Your task to perform on an android device: Open Youtube and go to the subscriptions tab Image 0: 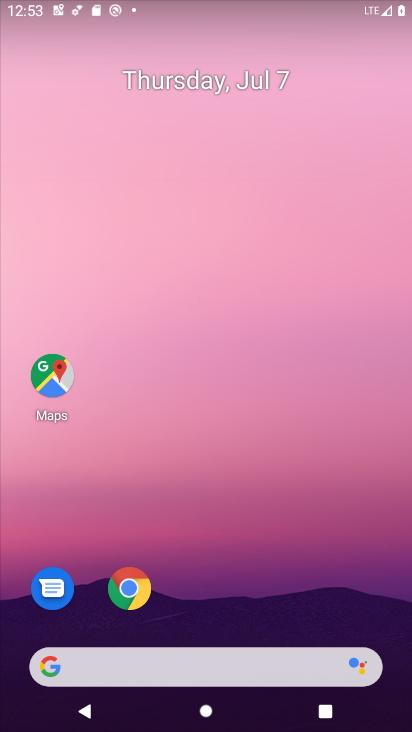
Step 0: click (170, 729)
Your task to perform on an android device: Open Youtube and go to the subscriptions tab Image 1: 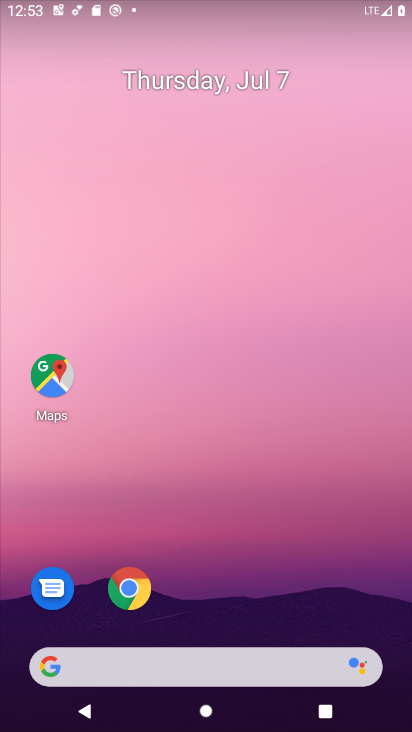
Step 1: drag from (196, 609) to (299, 138)
Your task to perform on an android device: Open Youtube and go to the subscriptions tab Image 2: 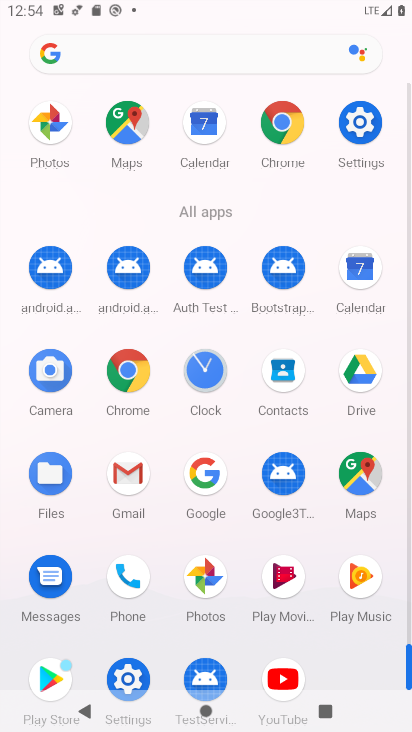
Step 2: click (269, 667)
Your task to perform on an android device: Open Youtube and go to the subscriptions tab Image 3: 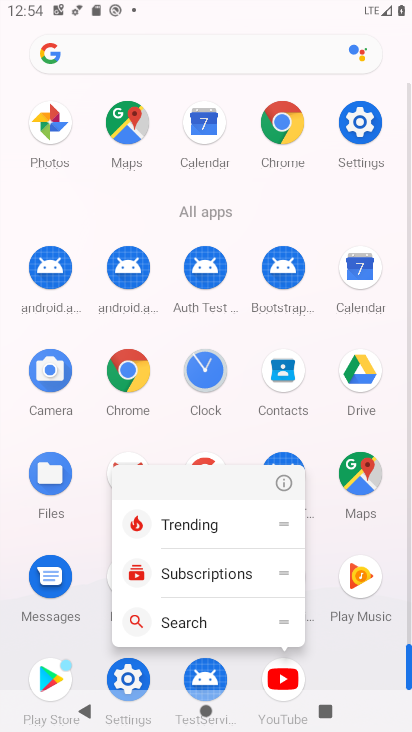
Step 3: click (280, 489)
Your task to perform on an android device: Open Youtube and go to the subscriptions tab Image 4: 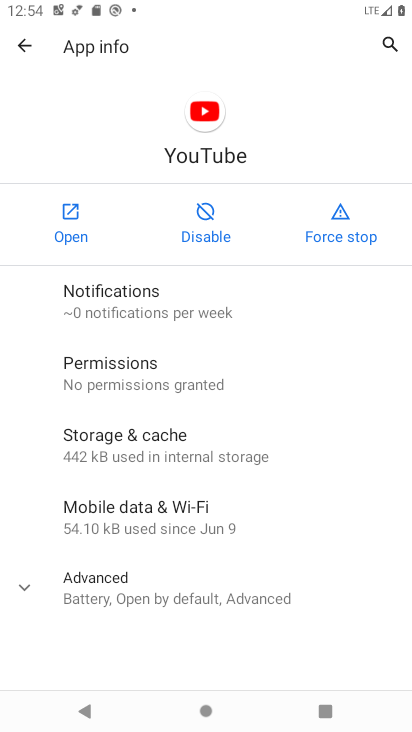
Step 4: click (73, 217)
Your task to perform on an android device: Open Youtube and go to the subscriptions tab Image 5: 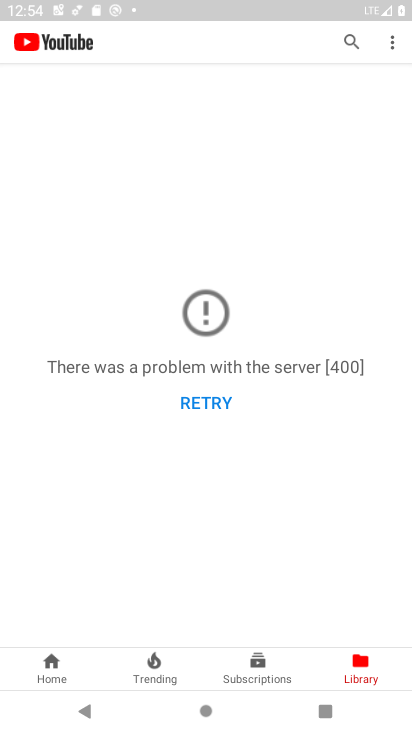
Step 5: drag from (208, 540) to (313, 264)
Your task to perform on an android device: Open Youtube and go to the subscriptions tab Image 6: 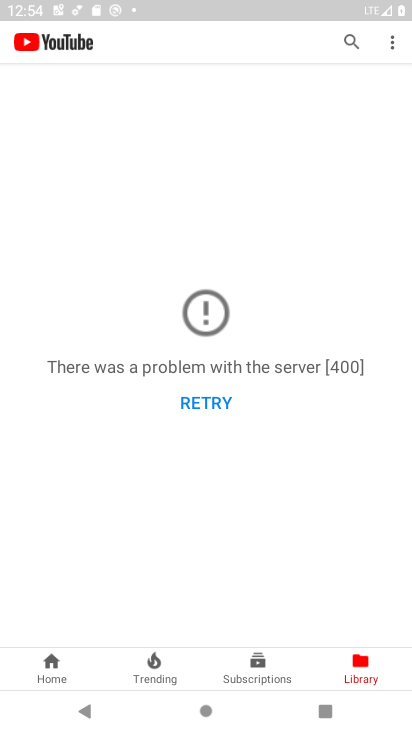
Step 6: drag from (278, 587) to (326, 380)
Your task to perform on an android device: Open Youtube and go to the subscriptions tab Image 7: 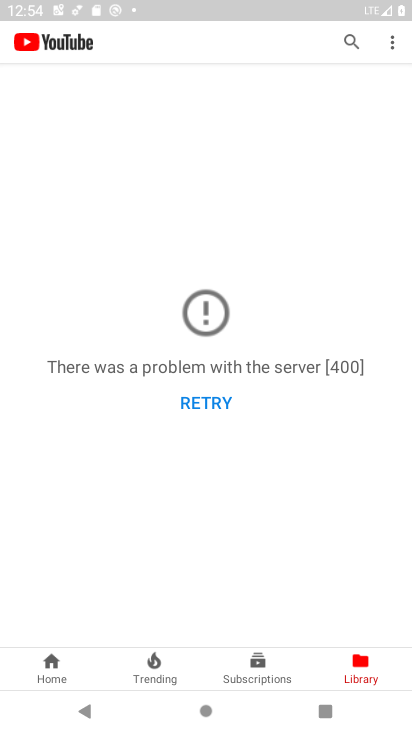
Step 7: press home button
Your task to perform on an android device: Open Youtube and go to the subscriptions tab Image 8: 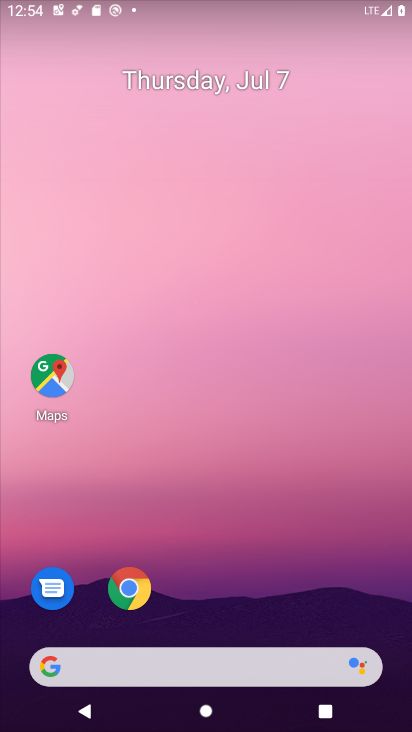
Step 8: drag from (199, 635) to (323, 167)
Your task to perform on an android device: Open Youtube and go to the subscriptions tab Image 9: 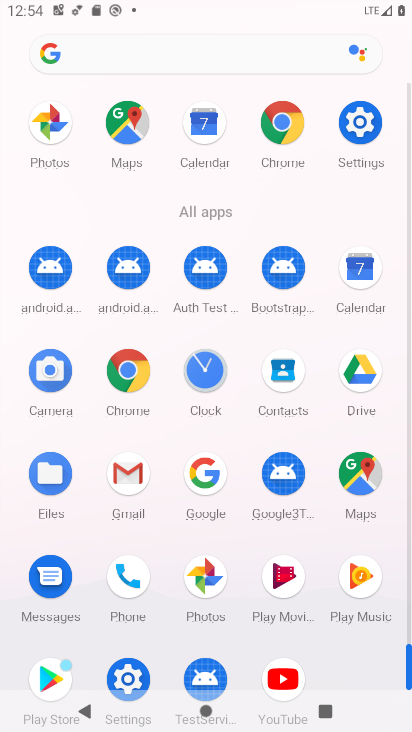
Step 9: click (290, 674)
Your task to perform on an android device: Open Youtube and go to the subscriptions tab Image 10: 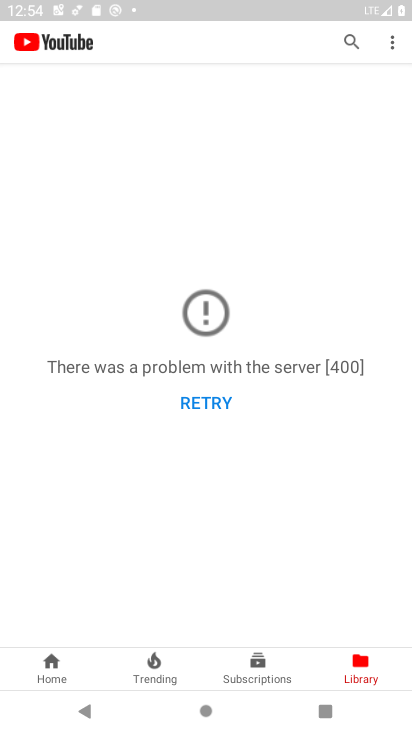
Step 10: click (344, 666)
Your task to perform on an android device: Open Youtube and go to the subscriptions tab Image 11: 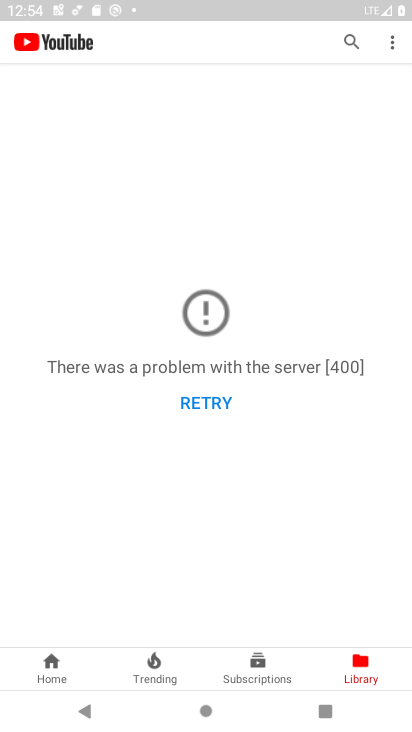
Step 11: click (250, 664)
Your task to perform on an android device: Open Youtube and go to the subscriptions tab Image 12: 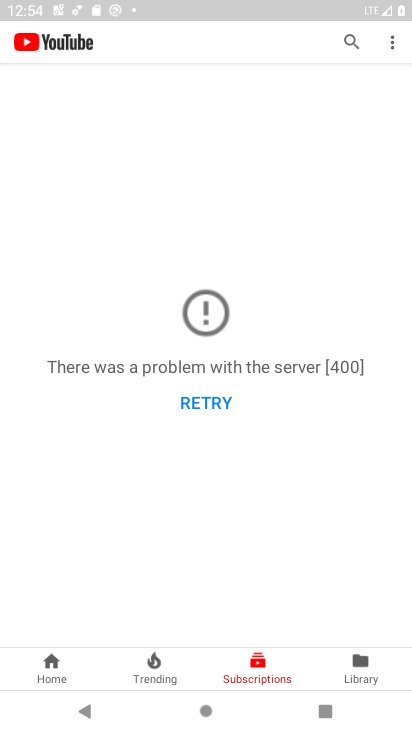
Step 12: drag from (232, 540) to (290, 289)
Your task to perform on an android device: Open Youtube and go to the subscriptions tab Image 13: 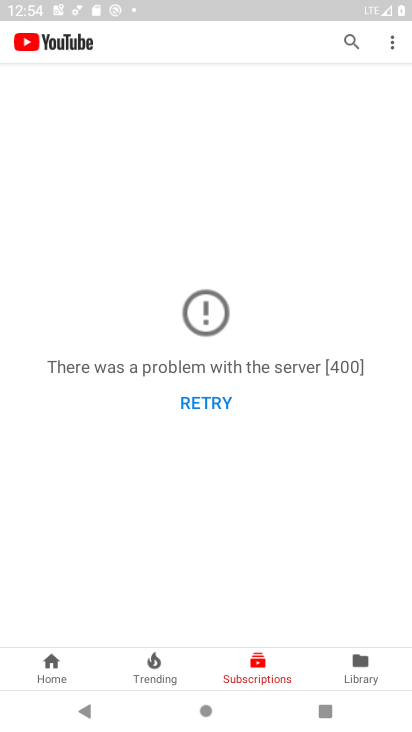
Step 13: click (214, 404)
Your task to perform on an android device: Open Youtube and go to the subscriptions tab Image 14: 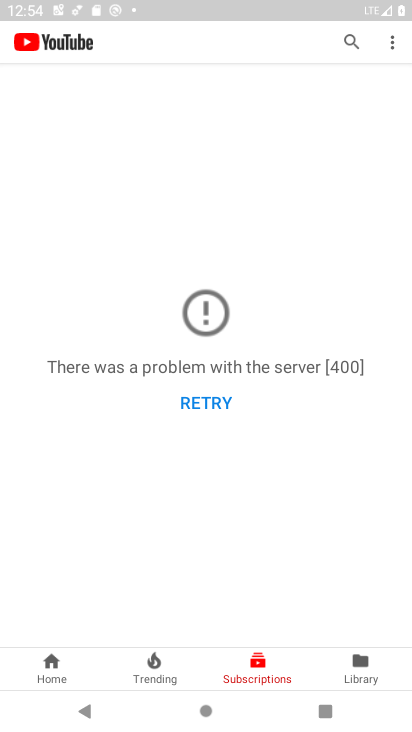
Step 14: task complete